Your task to perform on an android device: move a message to another label in the gmail app Image 0: 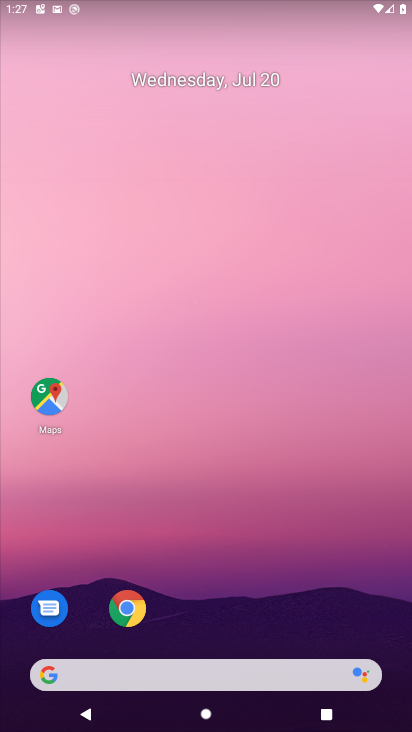
Step 0: drag from (217, 656) to (230, 224)
Your task to perform on an android device: move a message to another label in the gmail app Image 1: 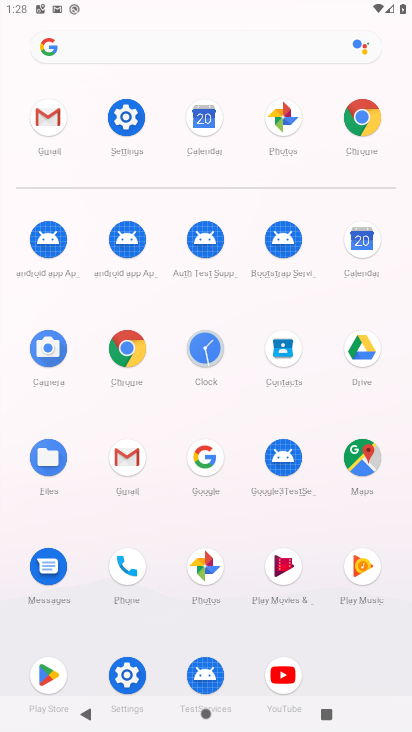
Step 1: click (136, 450)
Your task to perform on an android device: move a message to another label in the gmail app Image 2: 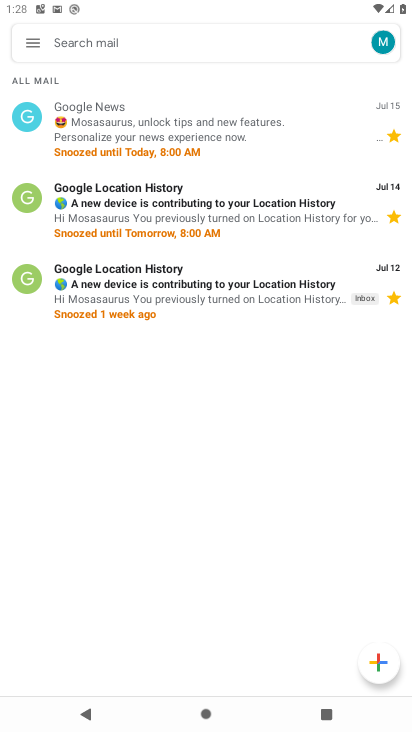
Step 2: click (102, 136)
Your task to perform on an android device: move a message to another label in the gmail app Image 3: 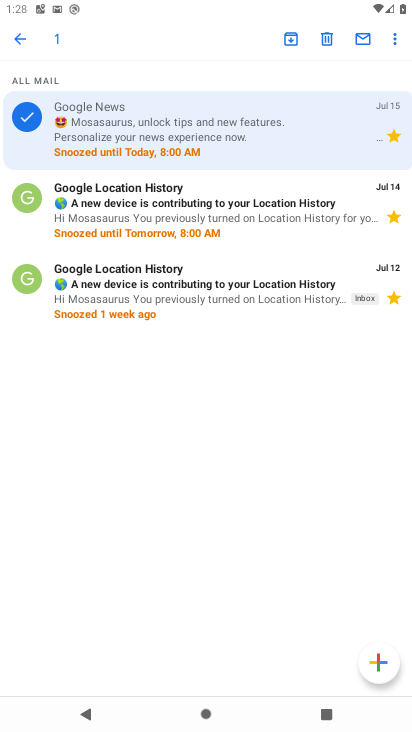
Step 3: click (389, 37)
Your task to perform on an android device: move a message to another label in the gmail app Image 4: 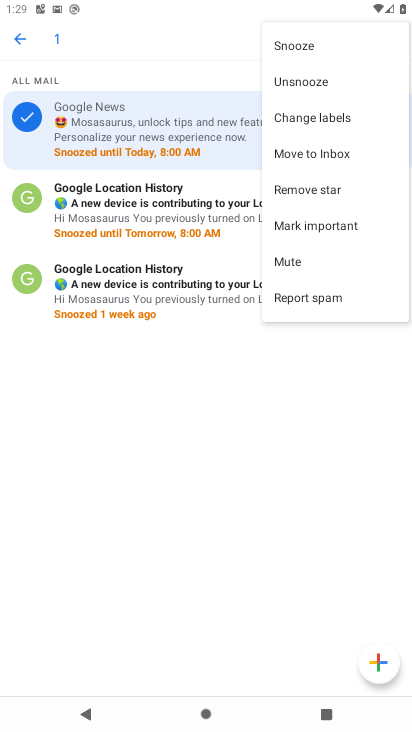
Step 4: click (331, 150)
Your task to perform on an android device: move a message to another label in the gmail app Image 5: 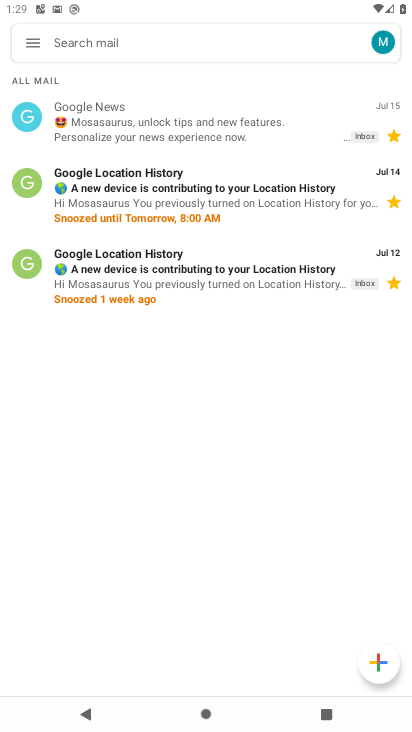
Step 5: task complete